Your task to perform on an android device: delete browsing data in the chrome app Image 0: 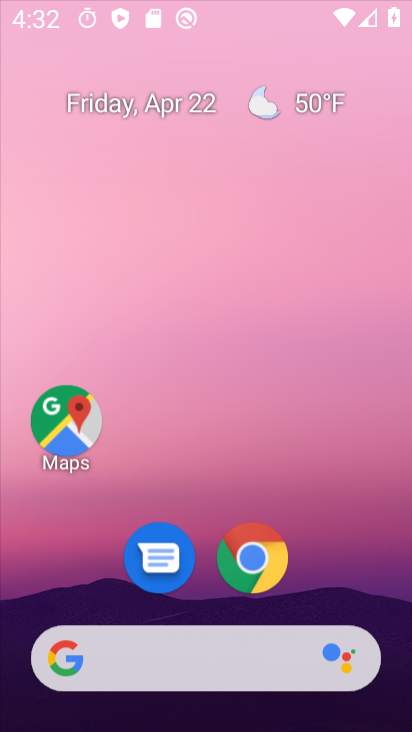
Step 0: click (256, 168)
Your task to perform on an android device: delete browsing data in the chrome app Image 1: 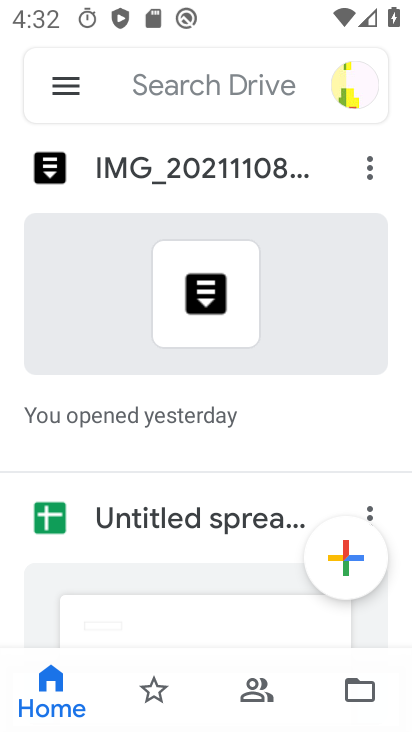
Step 1: press home button
Your task to perform on an android device: delete browsing data in the chrome app Image 2: 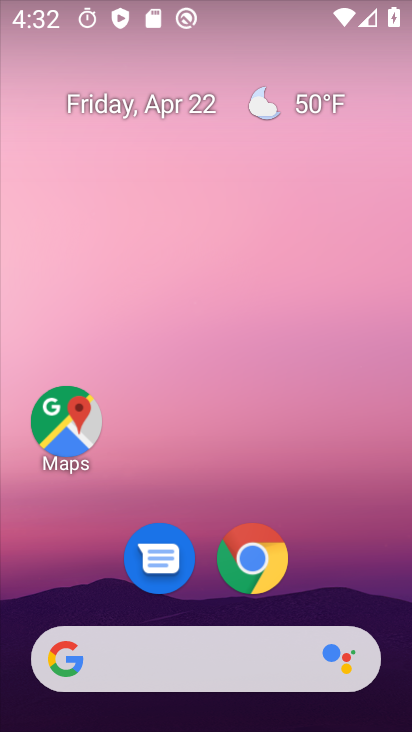
Step 2: click (259, 560)
Your task to perform on an android device: delete browsing data in the chrome app Image 3: 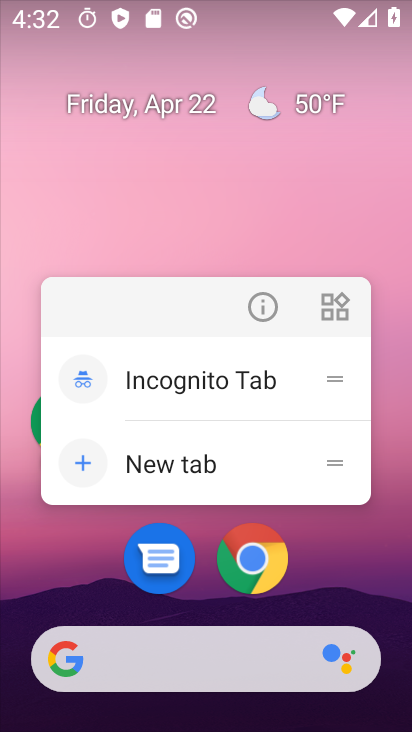
Step 3: click (264, 569)
Your task to perform on an android device: delete browsing data in the chrome app Image 4: 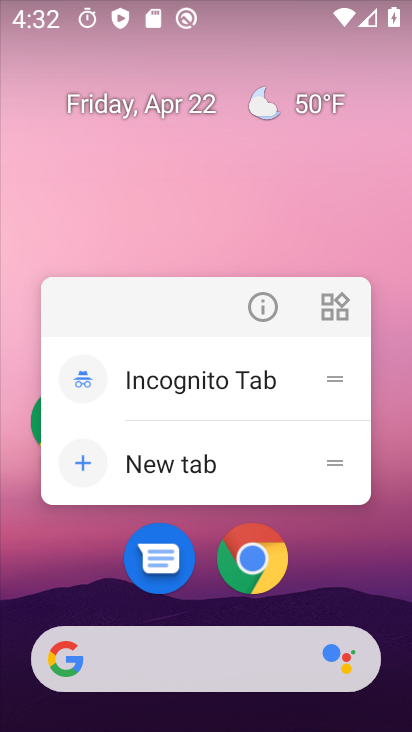
Step 4: click (261, 580)
Your task to perform on an android device: delete browsing data in the chrome app Image 5: 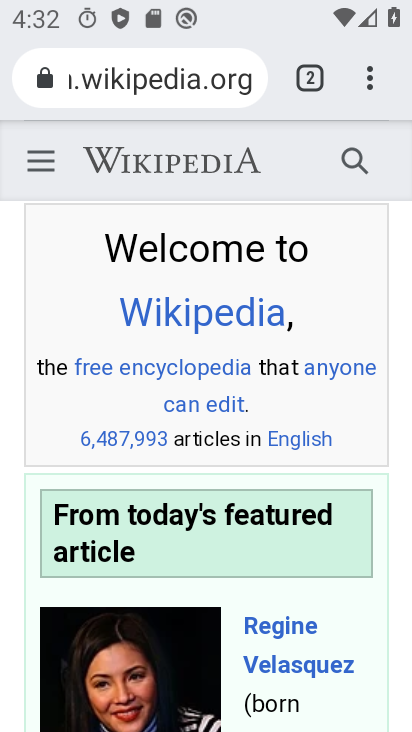
Step 5: click (363, 84)
Your task to perform on an android device: delete browsing data in the chrome app Image 6: 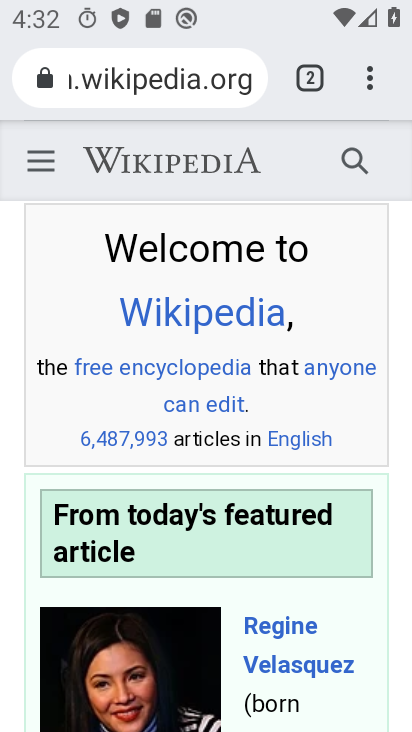
Step 6: click (371, 75)
Your task to perform on an android device: delete browsing data in the chrome app Image 7: 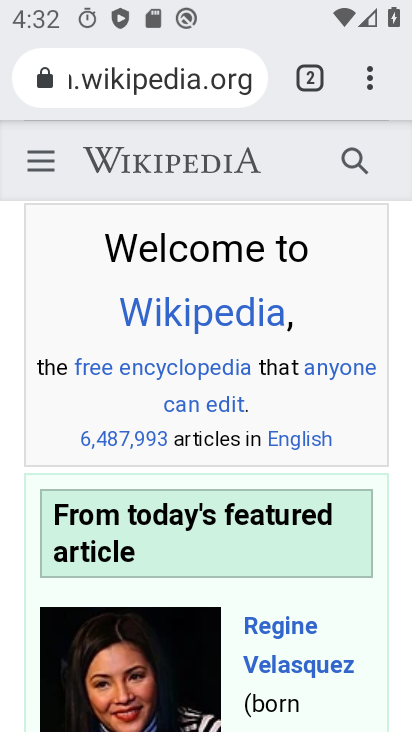
Step 7: click (366, 86)
Your task to perform on an android device: delete browsing data in the chrome app Image 8: 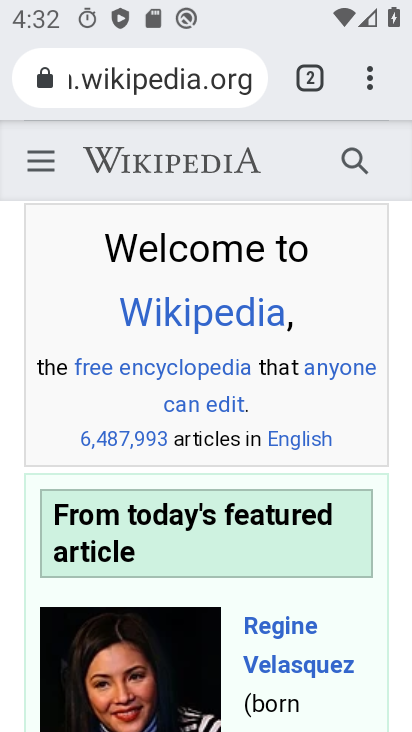
Step 8: click (376, 77)
Your task to perform on an android device: delete browsing data in the chrome app Image 9: 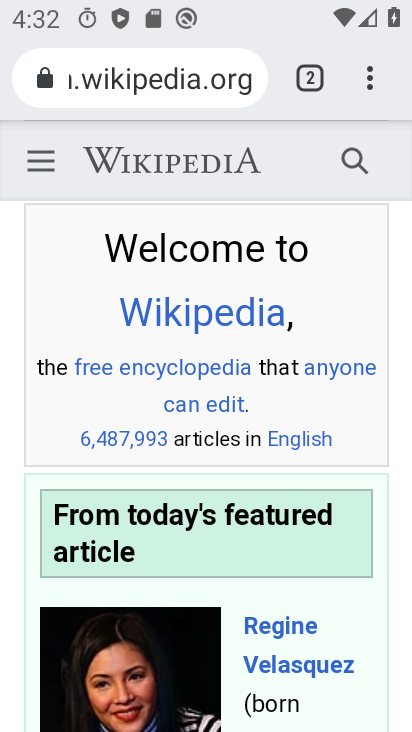
Step 9: click (369, 81)
Your task to perform on an android device: delete browsing data in the chrome app Image 10: 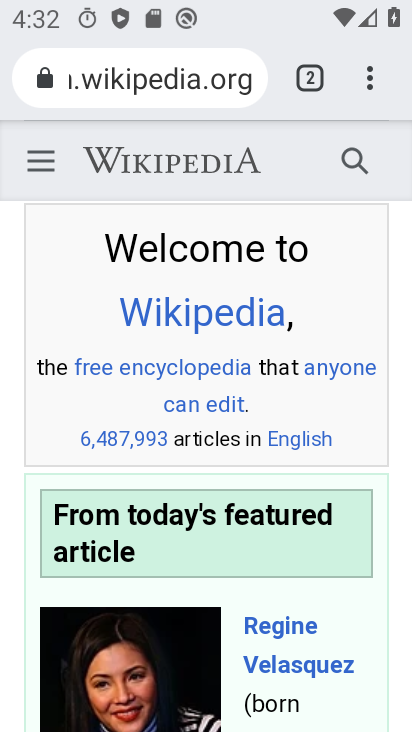
Step 10: click (368, 78)
Your task to perform on an android device: delete browsing data in the chrome app Image 11: 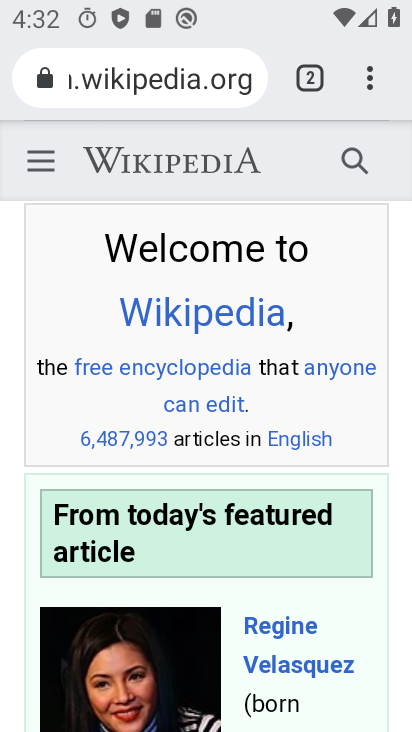
Step 11: click (372, 78)
Your task to perform on an android device: delete browsing data in the chrome app Image 12: 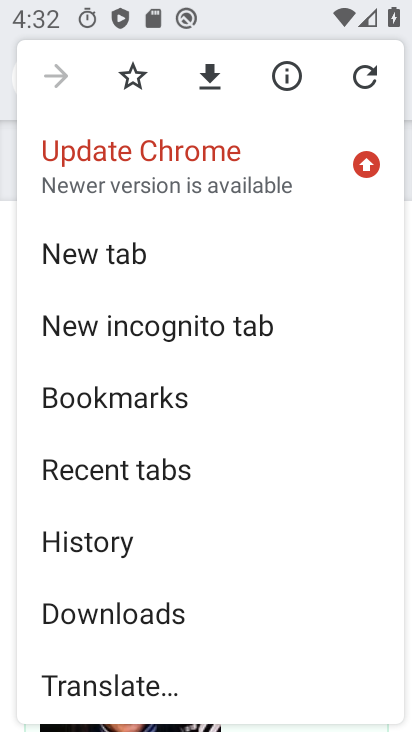
Step 12: click (116, 551)
Your task to perform on an android device: delete browsing data in the chrome app Image 13: 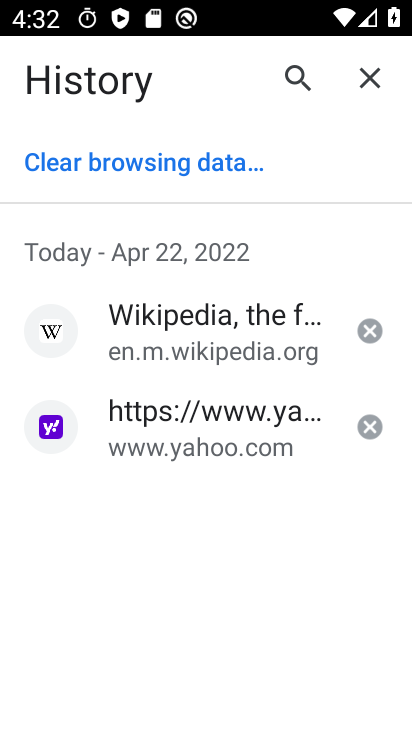
Step 13: click (152, 170)
Your task to perform on an android device: delete browsing data in the chrome app Image 14: 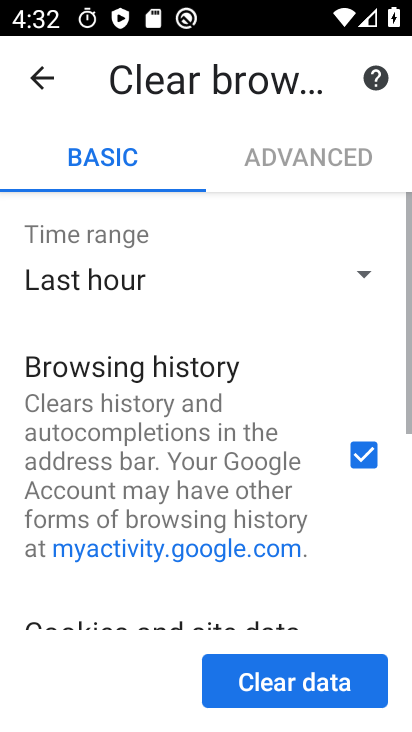
Step 14: click (271, 685)
Your task to perform on an android device: delete browsing data in the chrome app Image 15: 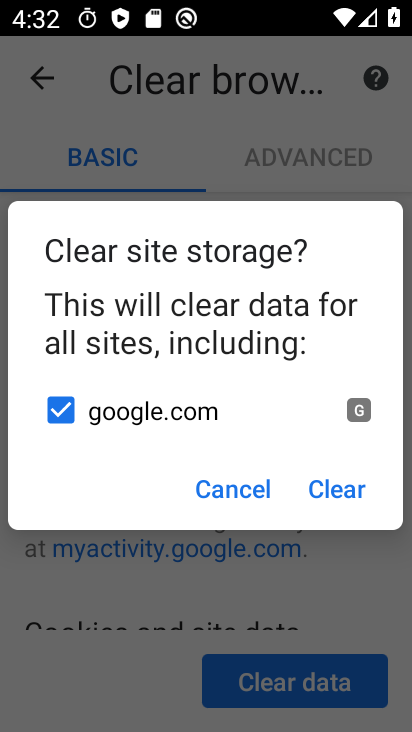
Step 15: click (333, 486)
Your task to perform on an android device: delete browsing data in the chrome app Image 16: 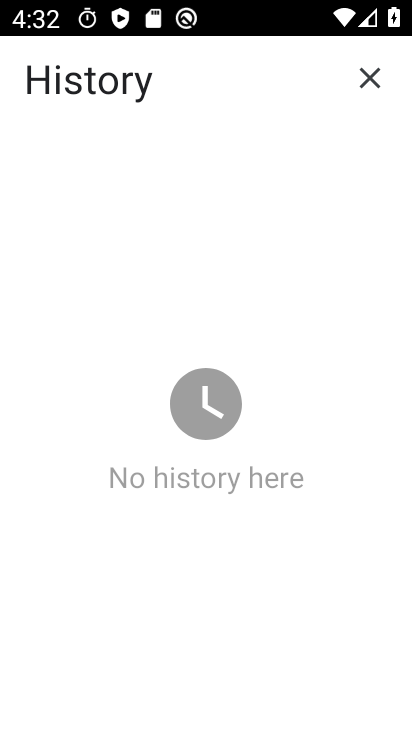
Step 16: task complete